Your task to perform on an android device: turn on showing notifications on the lock screen Image 0: 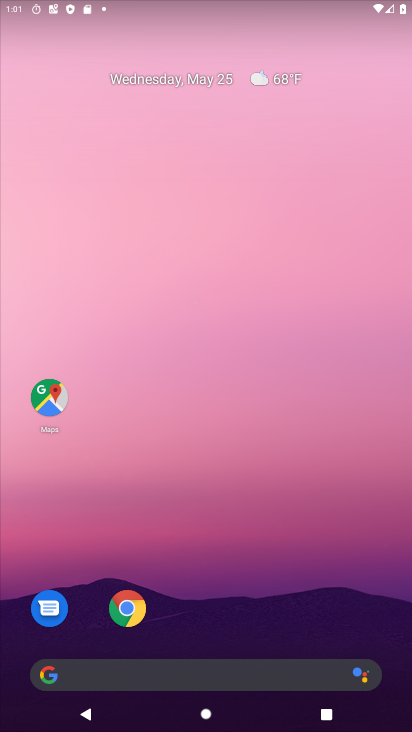
Step 0: drag from (254, 611) to (337, 16)
Your task to perform on an android device: turn on showing notifications on the lock screen Image 1: 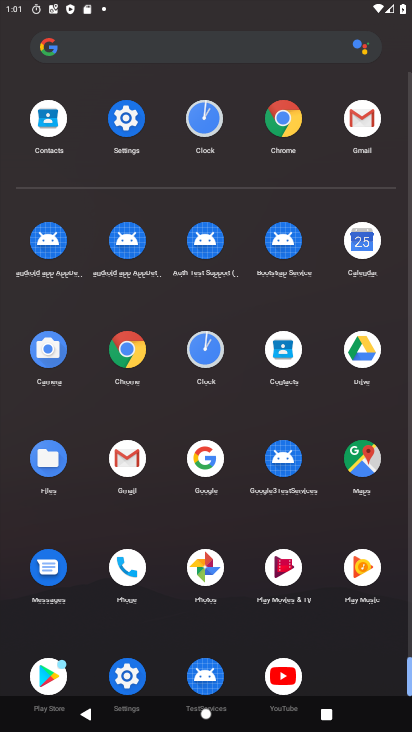
Step 1: click (202, 562)
Your task to perform on an android device: turn on showing notifications on the lock screen Image 2: 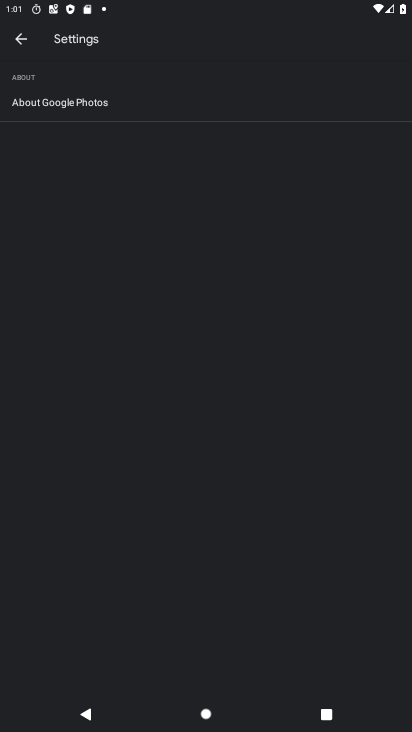
Step 2: click (23, 42)
Your task to perform on an android device: turn on showing notifications on the lock screen Image 3: 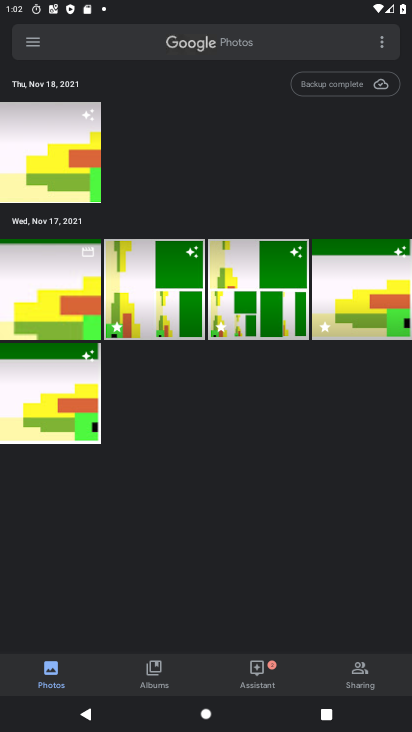
Step 3: click (36, 48)
Your task to perform on an android device: turn on showing notifications on the lock screen Image 4: 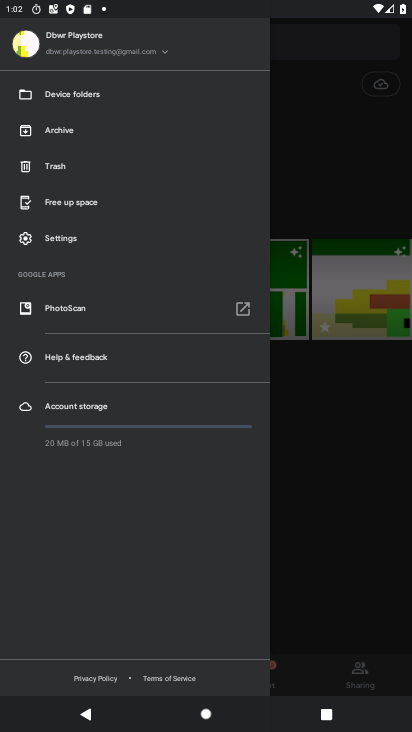
Step 4: click (77, 162)
Your task to perform on an android device: turn on showing notifications on the lock screen Image 5: 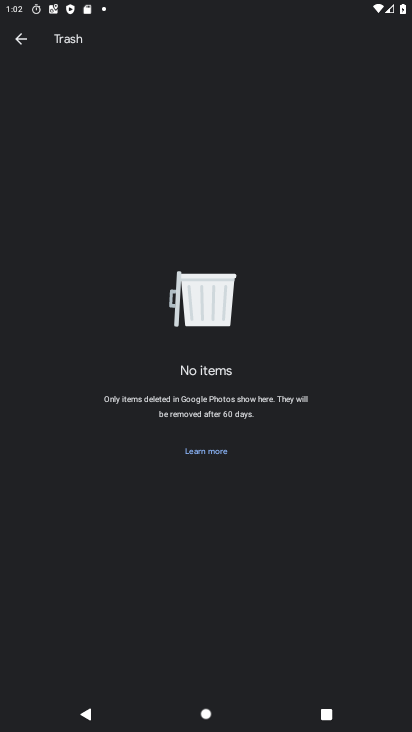
Step 5: task complete